Your task to perform on an android device: show emergency info Image 0: 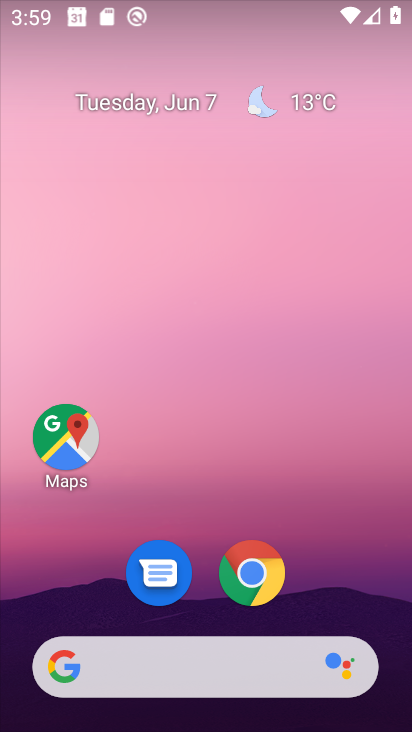
Step 0: press home button
Your task to perform on an android device: show emergency info Image 1: 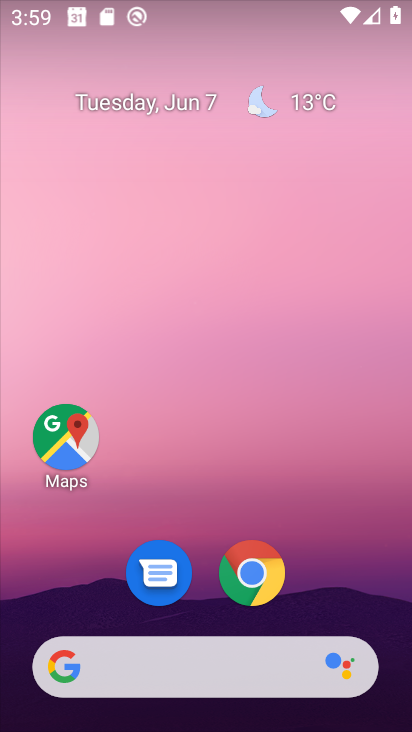
Step 1: click (269, 570)
Your task to perform on an android device: show emergency info Image 2: 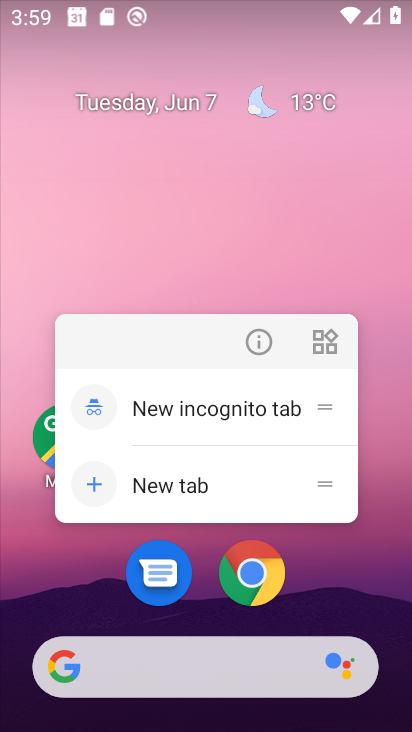
Step 2: click (244, 581)
Your task to perform on an android device: show emergency info Image 3: 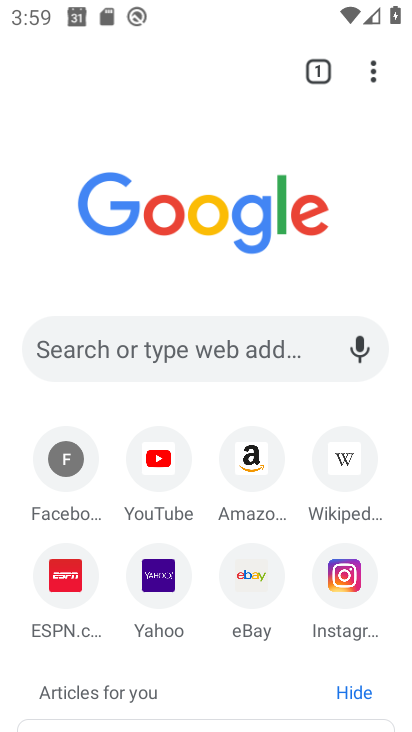
Step 3: drag from (384, 64) to (153, 578)
Your task to perform on an android device: show emergency info Image 4: 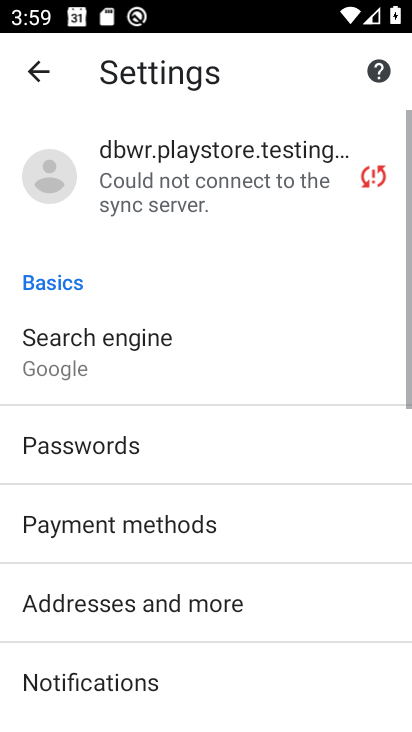
Step 4: drag from (166, 578) to (173, 279)
Your task to perform on an android device: show emergency info Image 5: 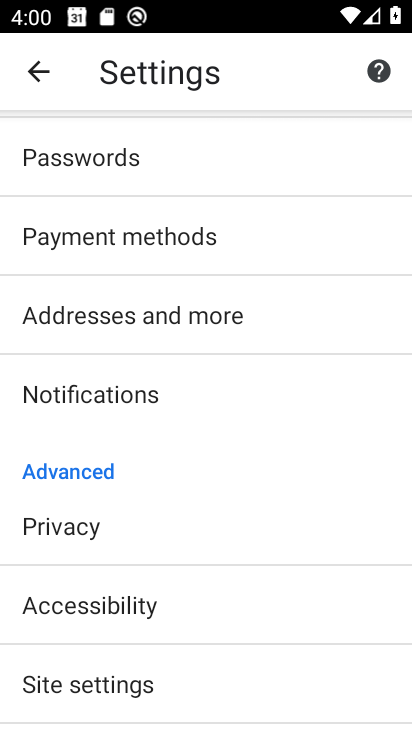
Step 5: drag from (135, 598) to (124, 510)
Your task to perform on an android device: show emergency info Image 6: 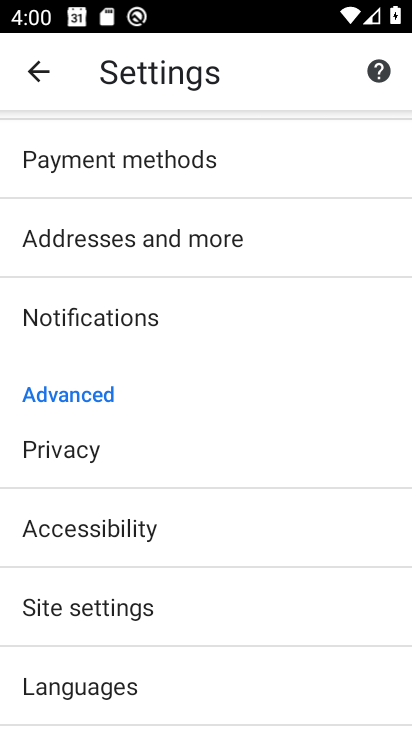
Step 6: drag from (183, 694) to (162, 450)
Your task to perform on an android device: show emergency info Image 7: 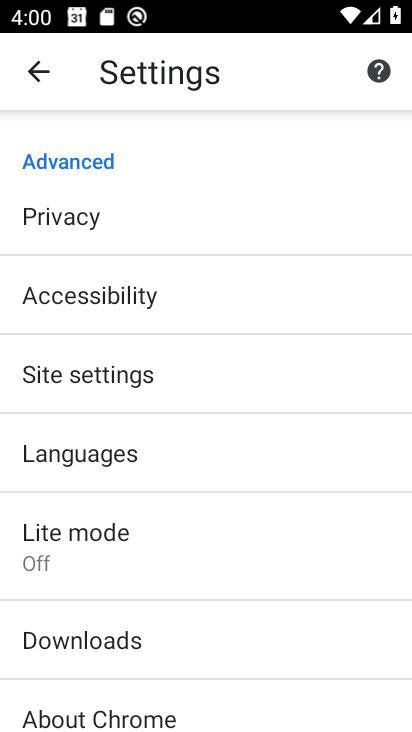
Step 7: click (133, 373)
Your task to perform on an android device: show emergency info Image 8: 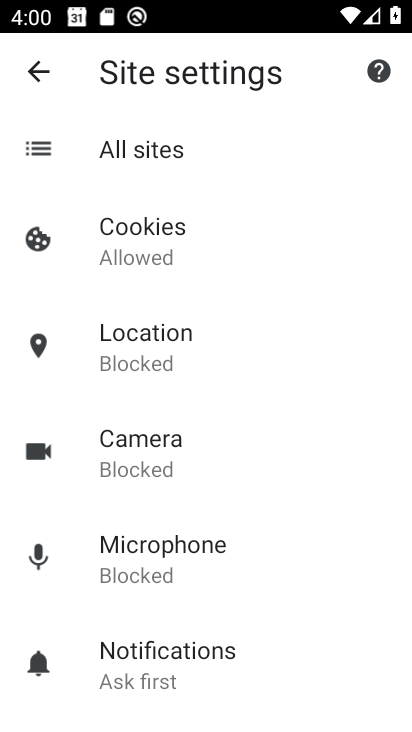
Step 8: drag from (225, 659) to (197, 561)
Your task to perform on an android device: show emergency info Image 9: 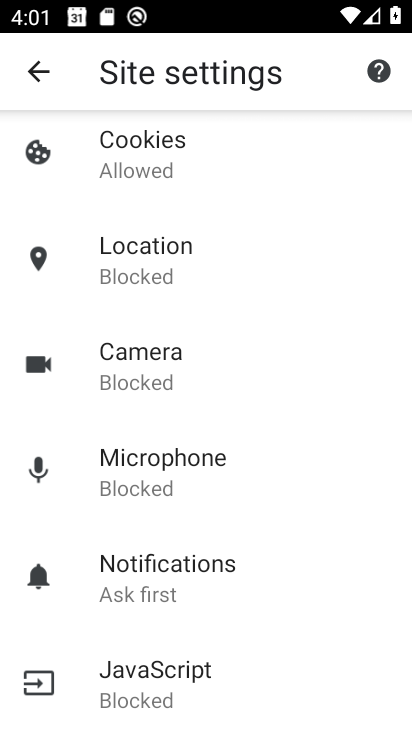
Step 9: press home button
Your task to perform on an android device: show emergency info Image 10: 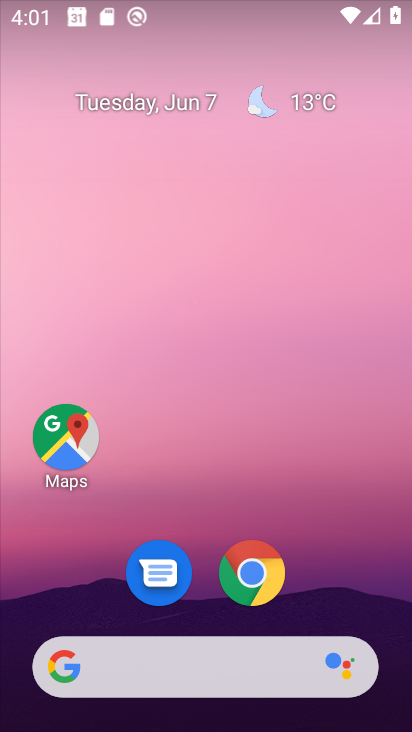
Step 10: drag from (361, 572) to (337, 94)
Your task to perform on an android device: show emergency info Image 11: 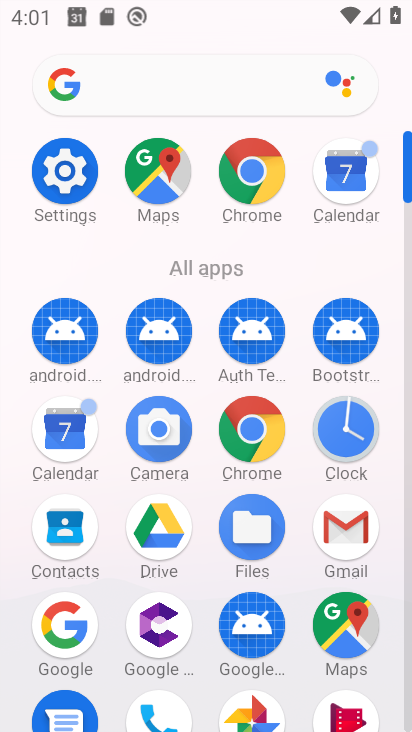
Step 11: click (78, 180)
Your task to perform on an android device: show emergency info Image 12: 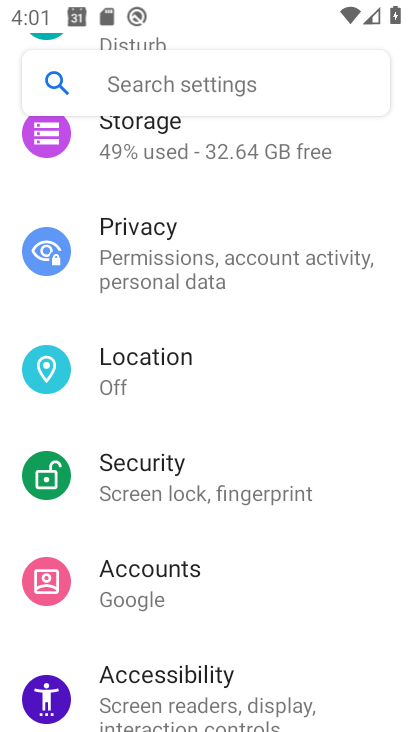
Step 12: drag from (199, 433) to (131, 52)
Your task to perform on an android device: show emergency info Image 13: 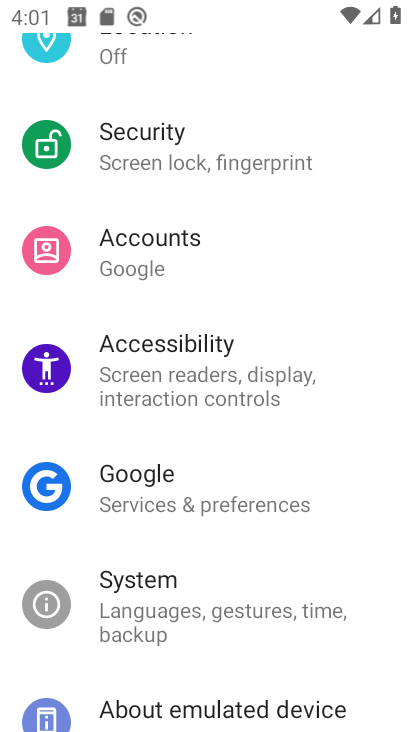
Step 13: drag from (154, 431) to (113, 10)
Your task to perform on an android device: show emergency info Image 14: 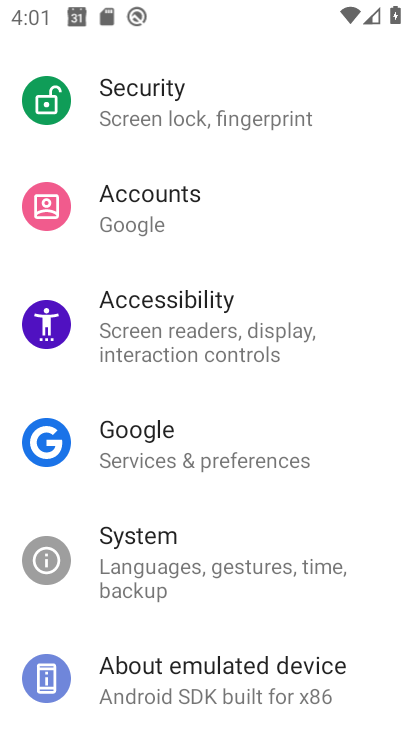
Step 14: click (220, 675)
Your task to perform on an android device: show emergency info Image 15: 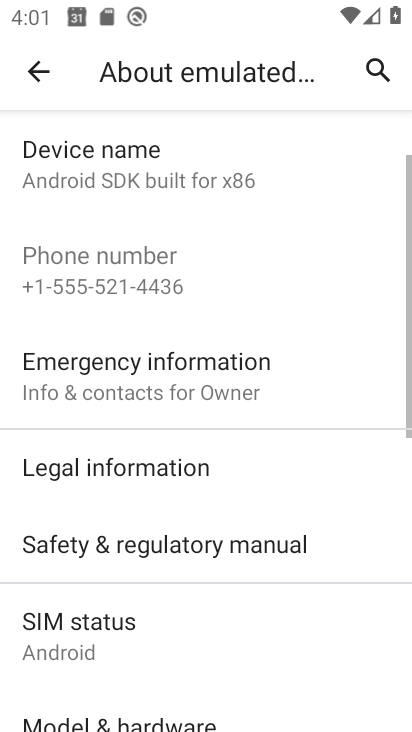
Step 15: click (168, 392)
Your task to perform on an android device: show emergency info Image 16: 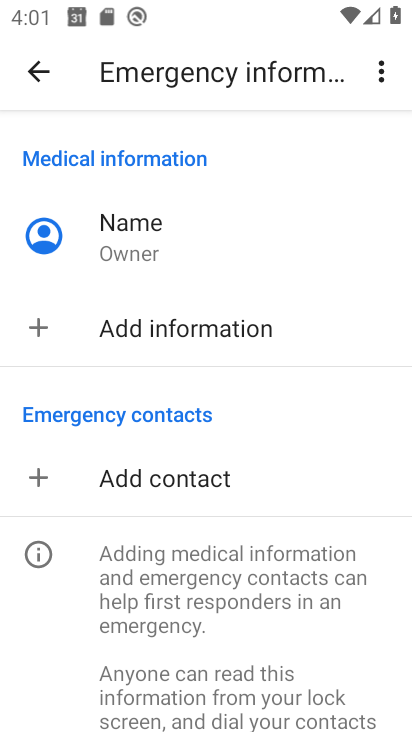
Step 16: task complete